Your task to perform on an android device: Open Yahoo.com Image 0: 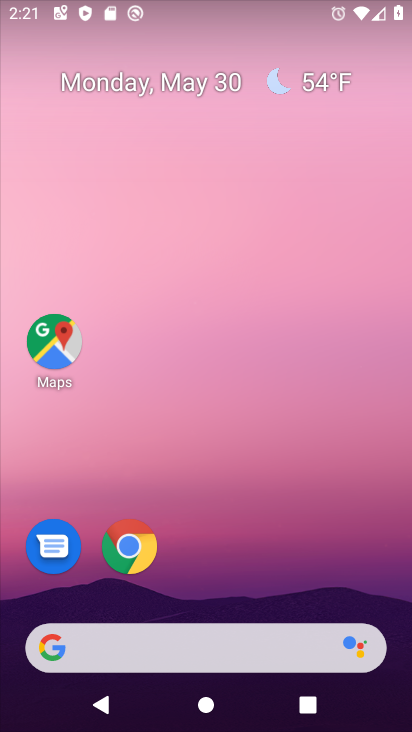
Step 0: click (131, 540)
Your task to perform on an android device: Open Yahoo.com Image 1: 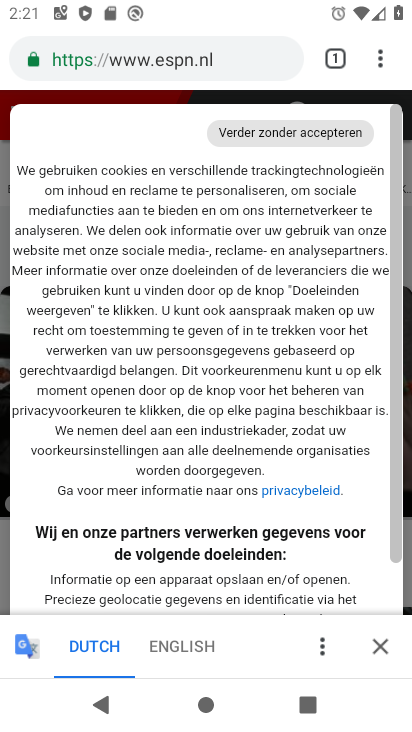
Step 1: drag from (220, 583) to (263, 157)
Your task to perform on an android device: Open Yahoo.com Image 2: 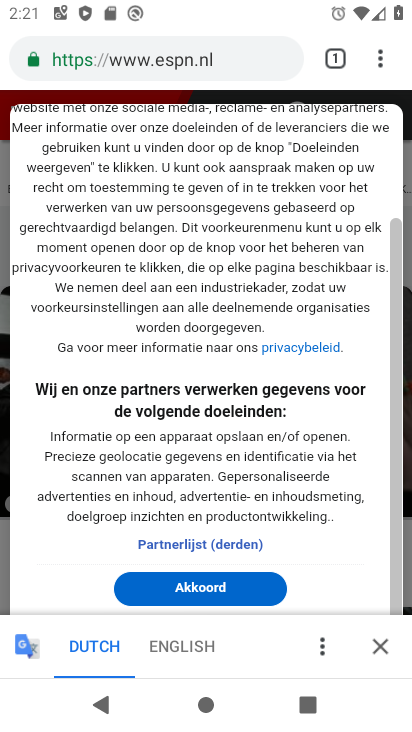
Step 2: click (332, 48)
Your task to perform on an android device: Open Yahoo.com Image 3: 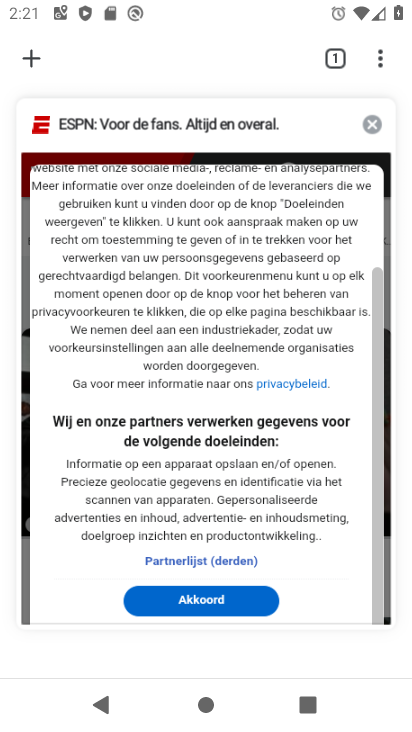
Step 3: click (377, 125)
Your task to perform on an android device: Open Yahoo.com Image 4: 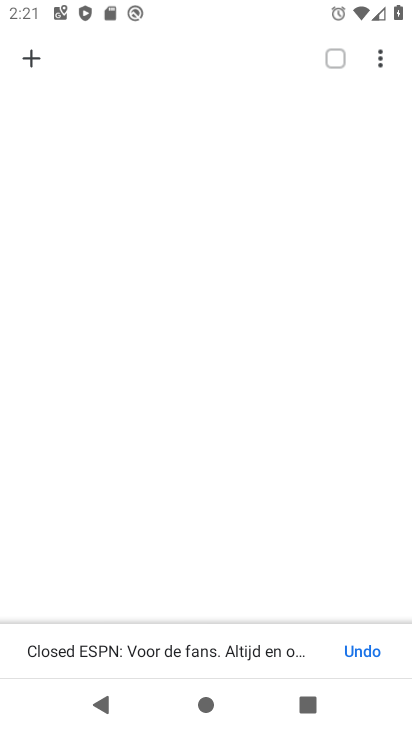
Step 4: click (41, 58)
Your task to perform on an android device: Open Yahoo.com Image 5: 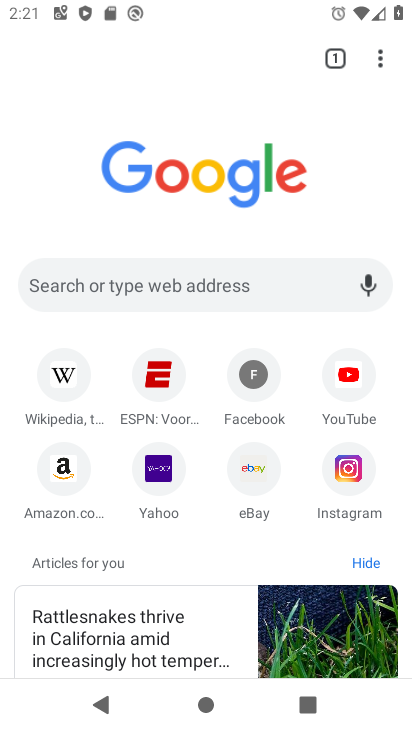
Step 5: click (138, 461)
Your task to perform on an android device: Open Yahoo.com Image 6: 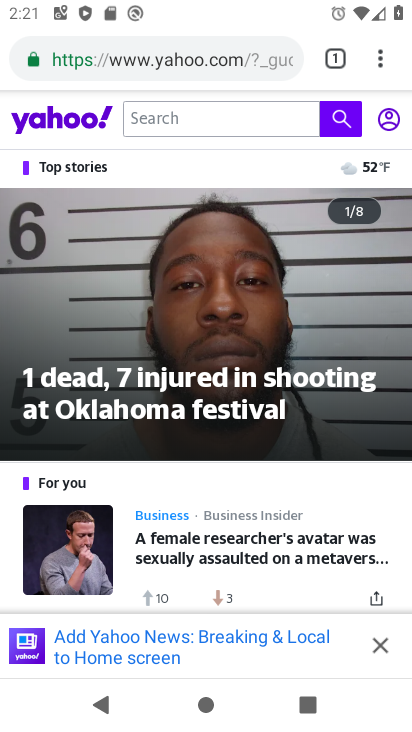
Step 6: task complete